Your task to perform on an android device: Show the shopping cart on bestbuy. Add "logitech g903" to the cart on bestbuy Image 0: 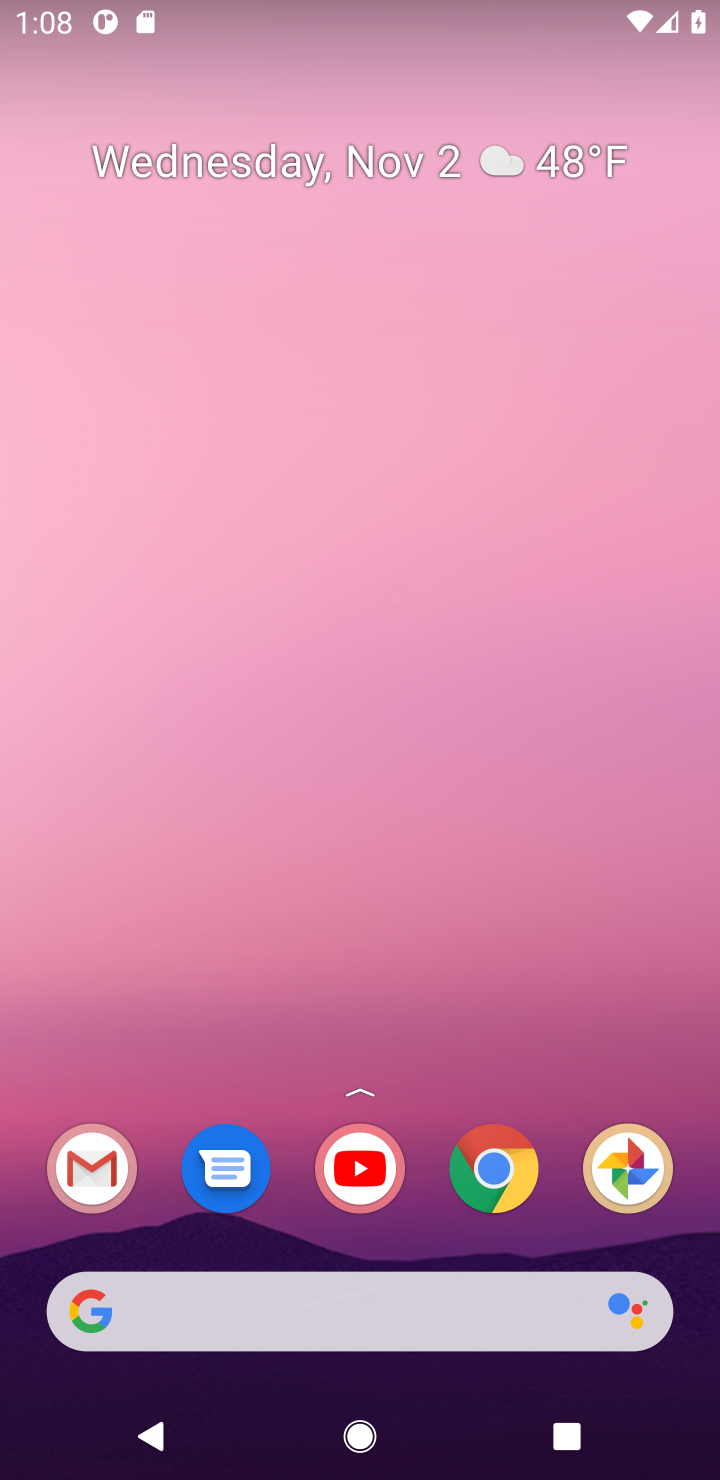
Step 0: click (271, 1303)
Your task to perform on an android device: Show the shopping cart on bestbuy. Add "logitech g903" to the cart on bestbuy Image 1: 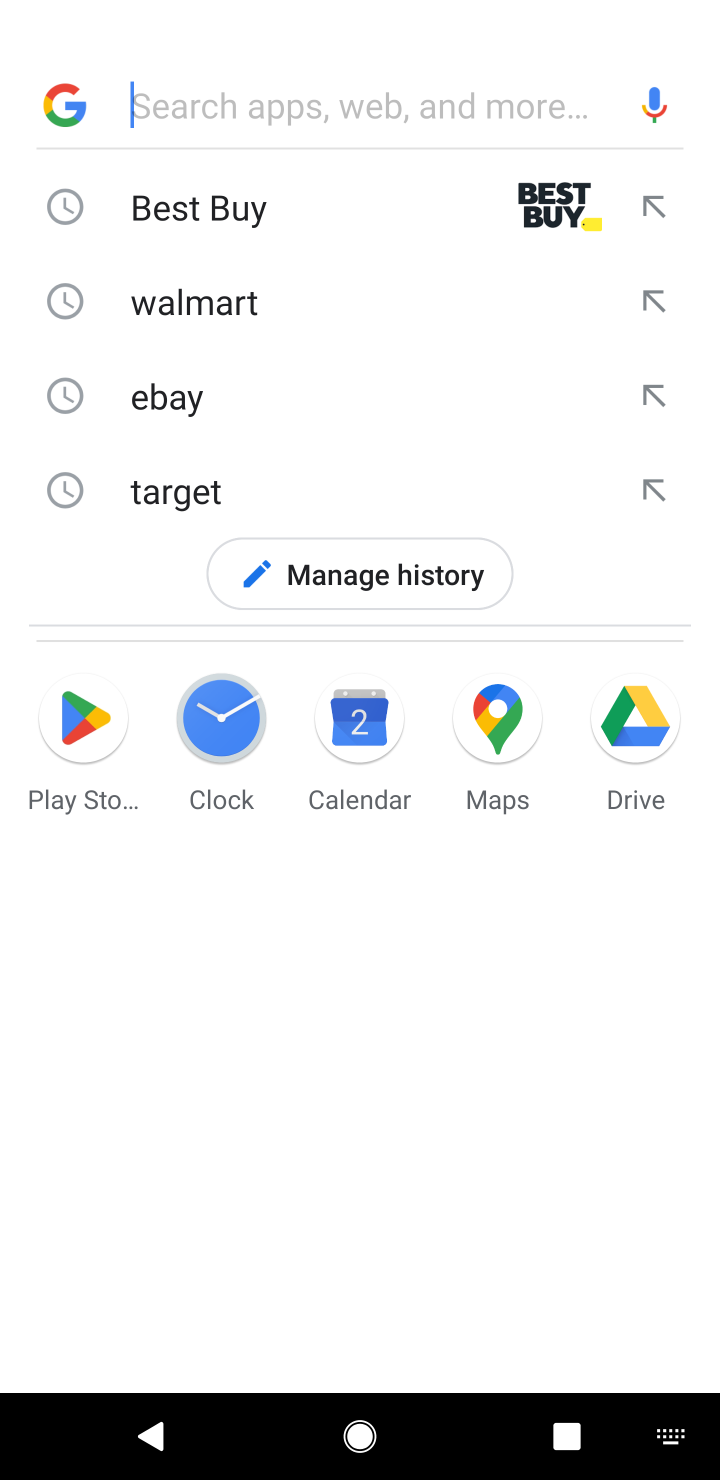
Step 1: click (261, 208)
Your task to perform on an android device: Show the shopping cart on bestbuy. Add "logitech g903" to the cart on bestbuy Image 2: 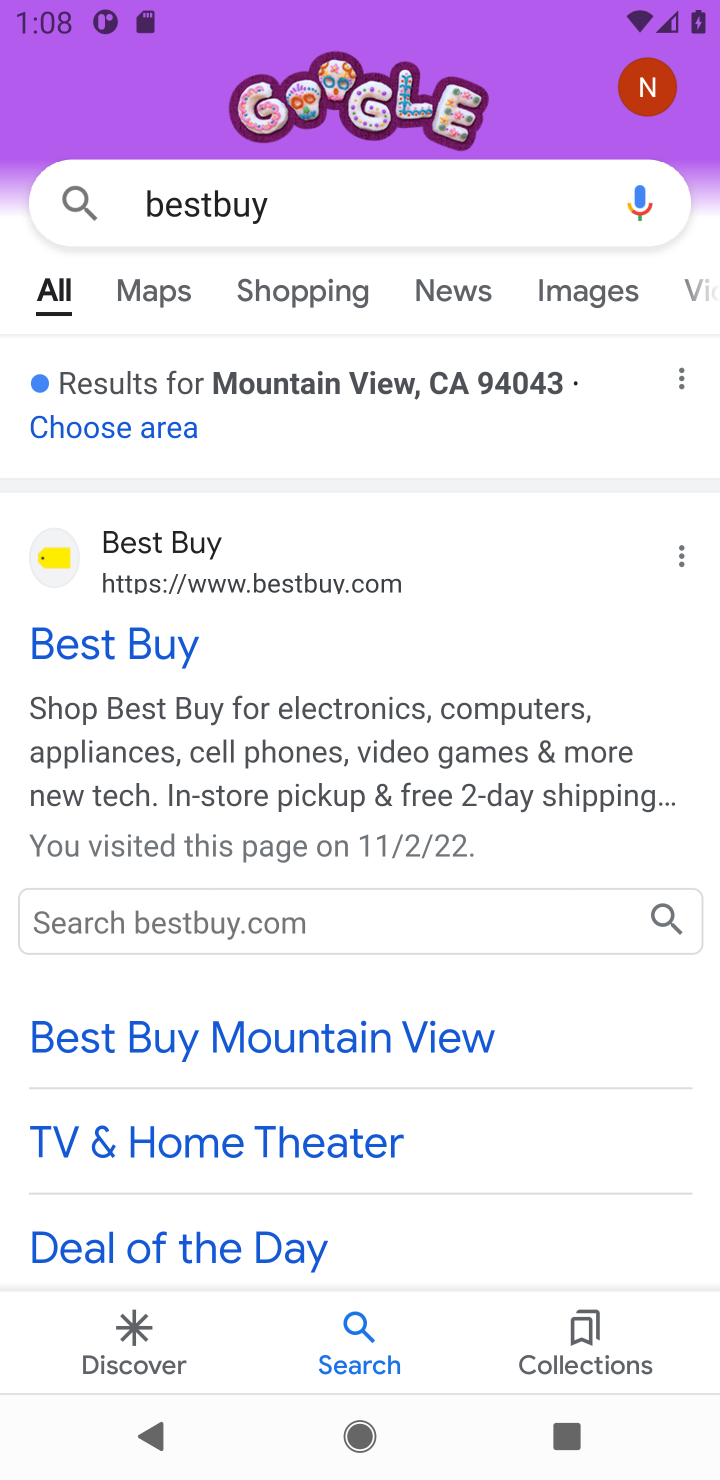
Step 2: click (114, 582)
Your task to perform on an android device: Show the shopping cart on bestbuy. Add "logitech g903" to the cart on bestbuy Image 3: 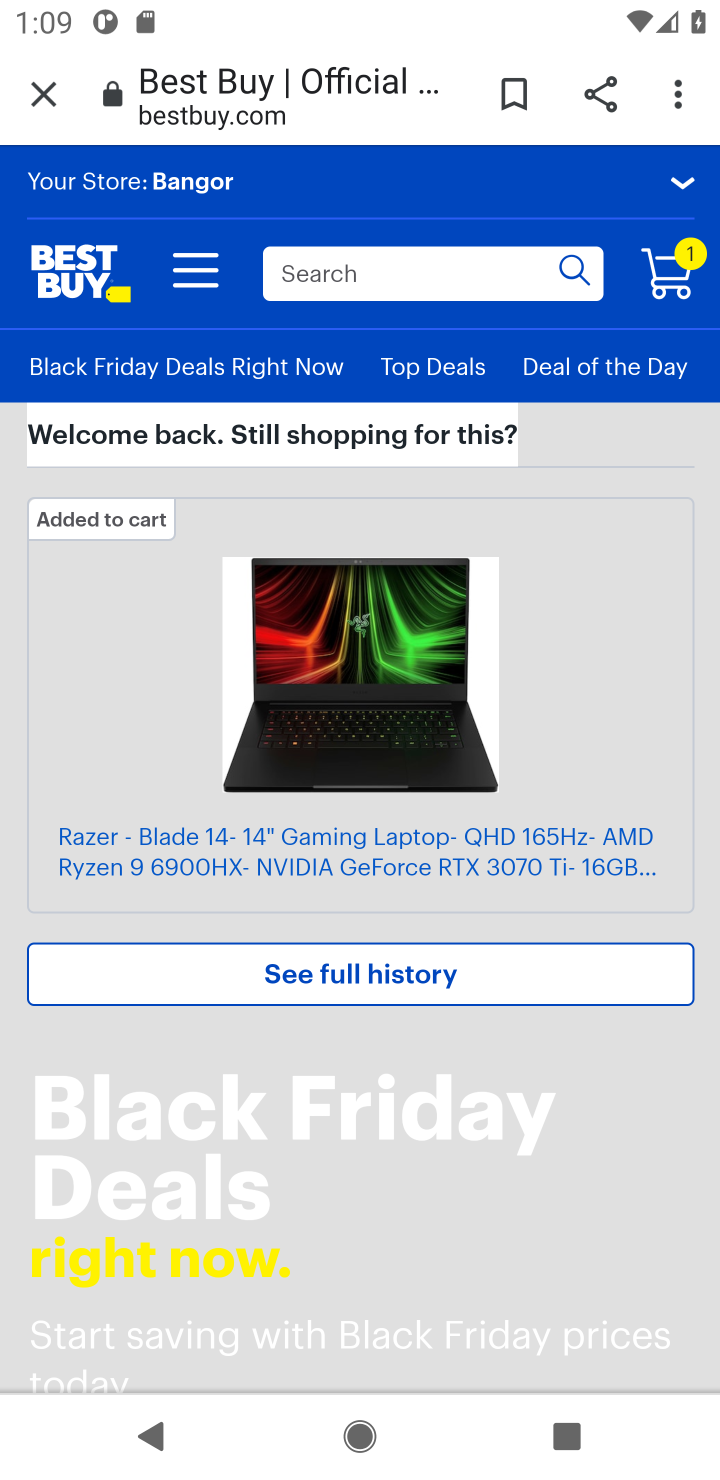
Step 3: click (338, 265)
Your task to perform on an android device: Show the shopping cart on bestbuy. Add "logitech g903" to the cart on bestbuy Image 4: 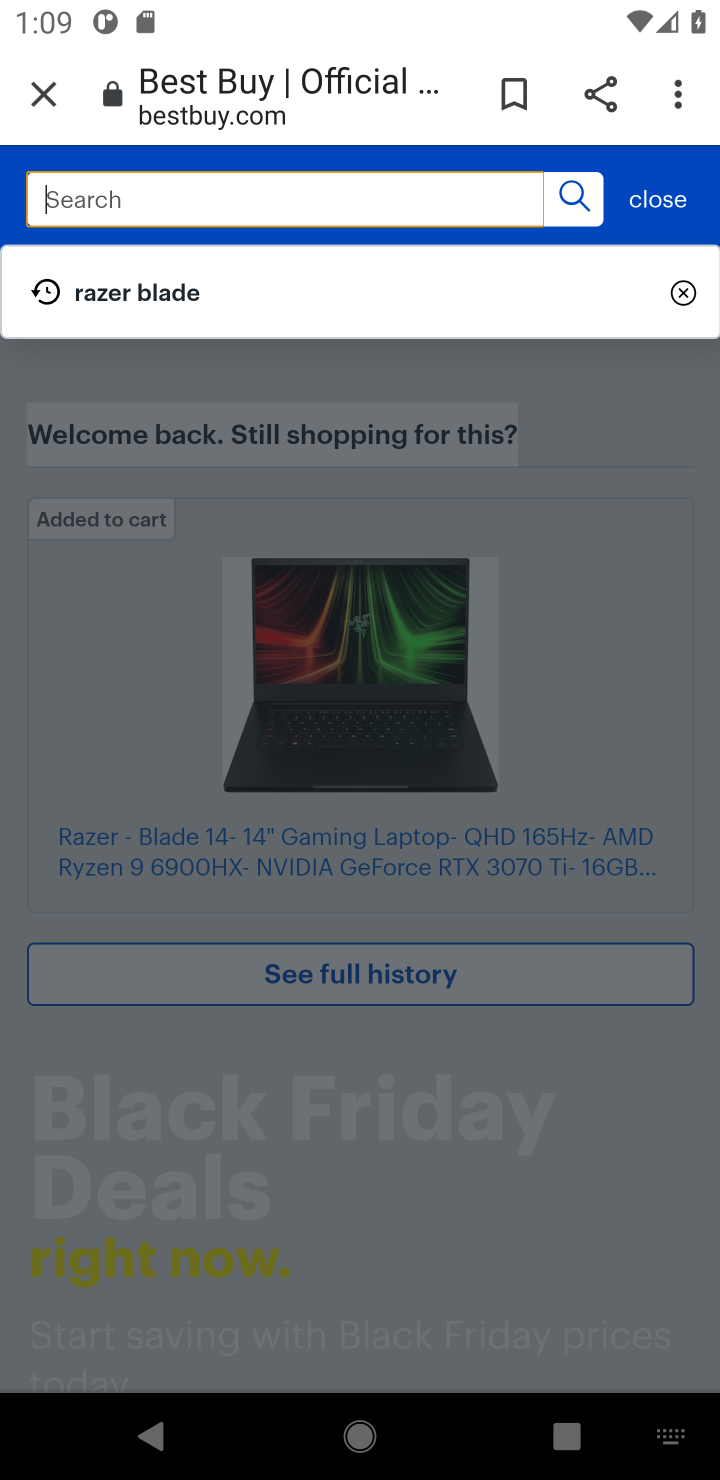
Step 4: type "bestbuy"
Your task to perform on an android device: Show the shopping cart on bestbuy. Add "logitech g903" to the cart on bestbuy Image 5: 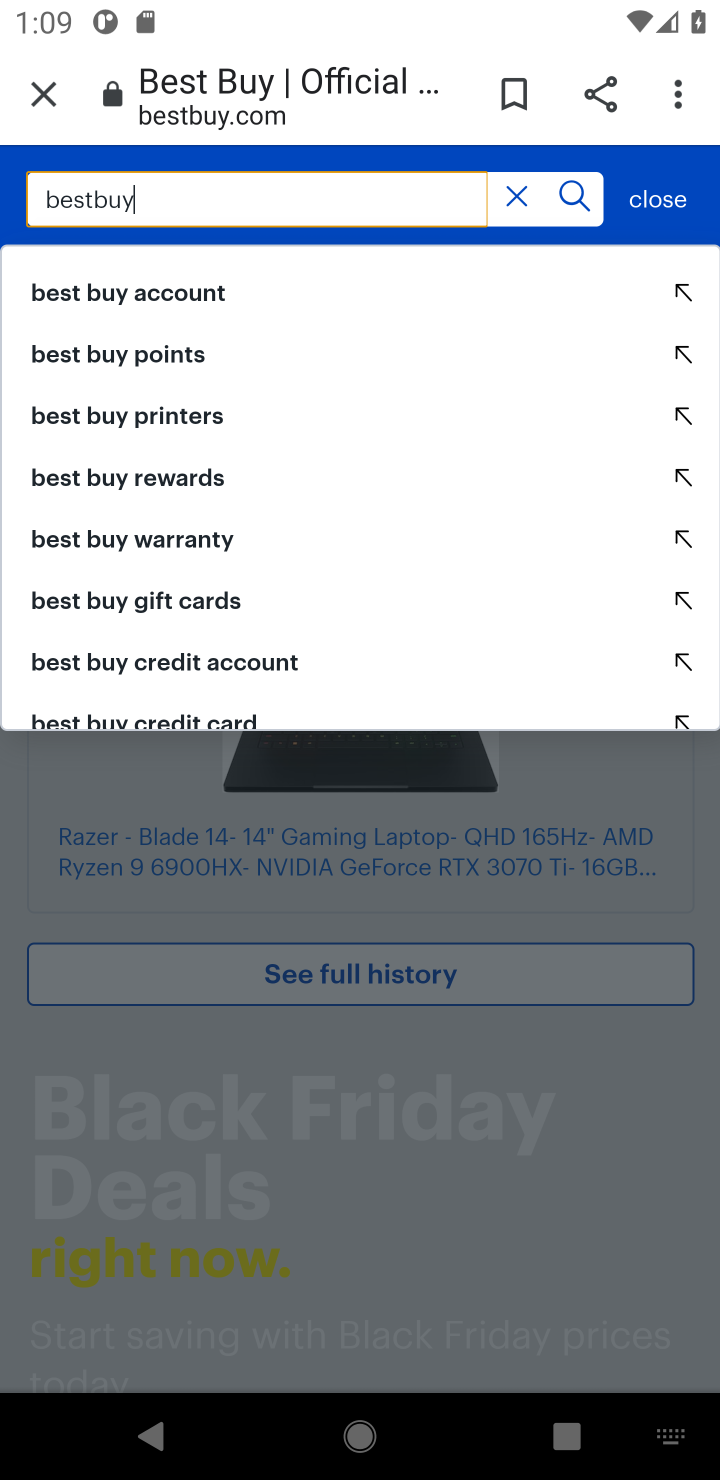
Step 5: click (510, 193)
Your task to perform on an android device: Show the shopping cart on bestbuy. Add "logitech g903" to the cart on bestbuy Image 6: 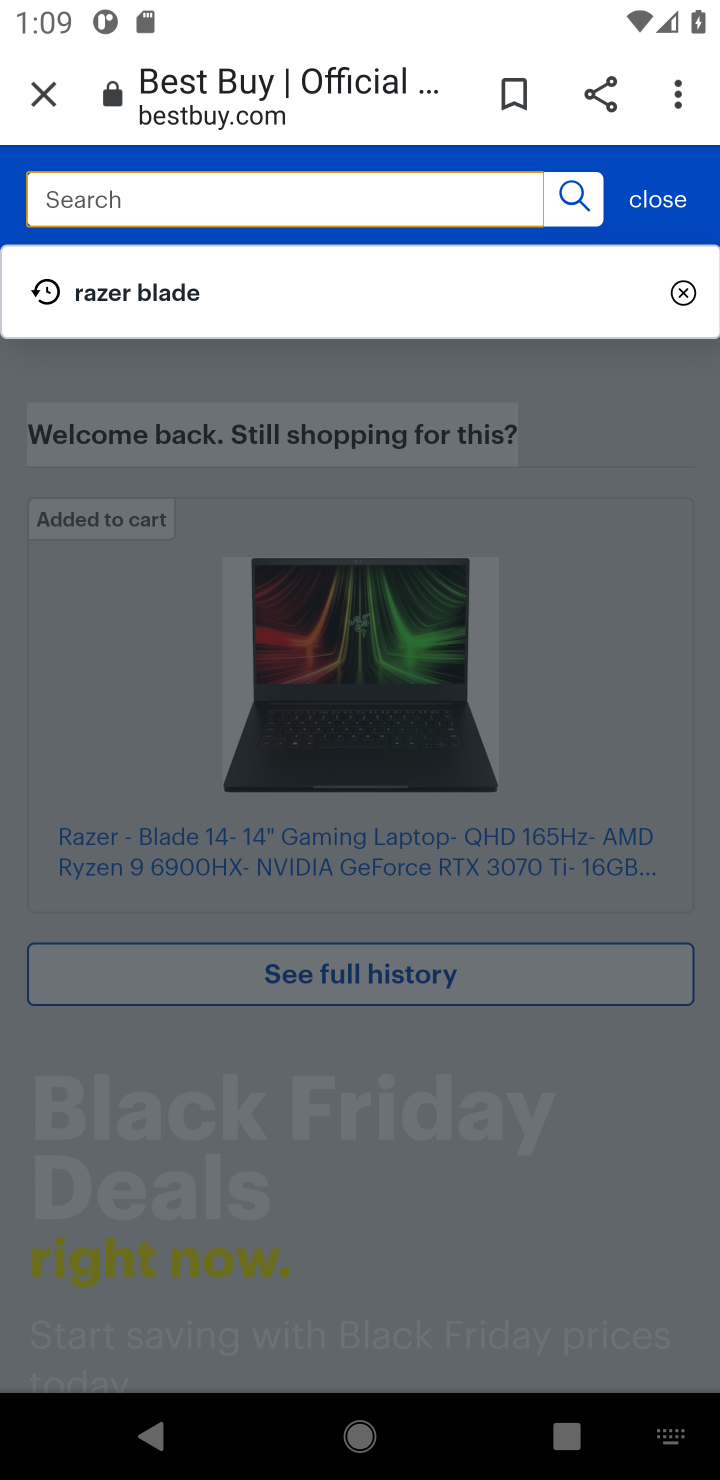
Step 6: type "logitech g903"
Your task to perform on an android device: Show the shopping cart on bestbuy. Add "logitech g903" to the cart on bestbuy Image 7: 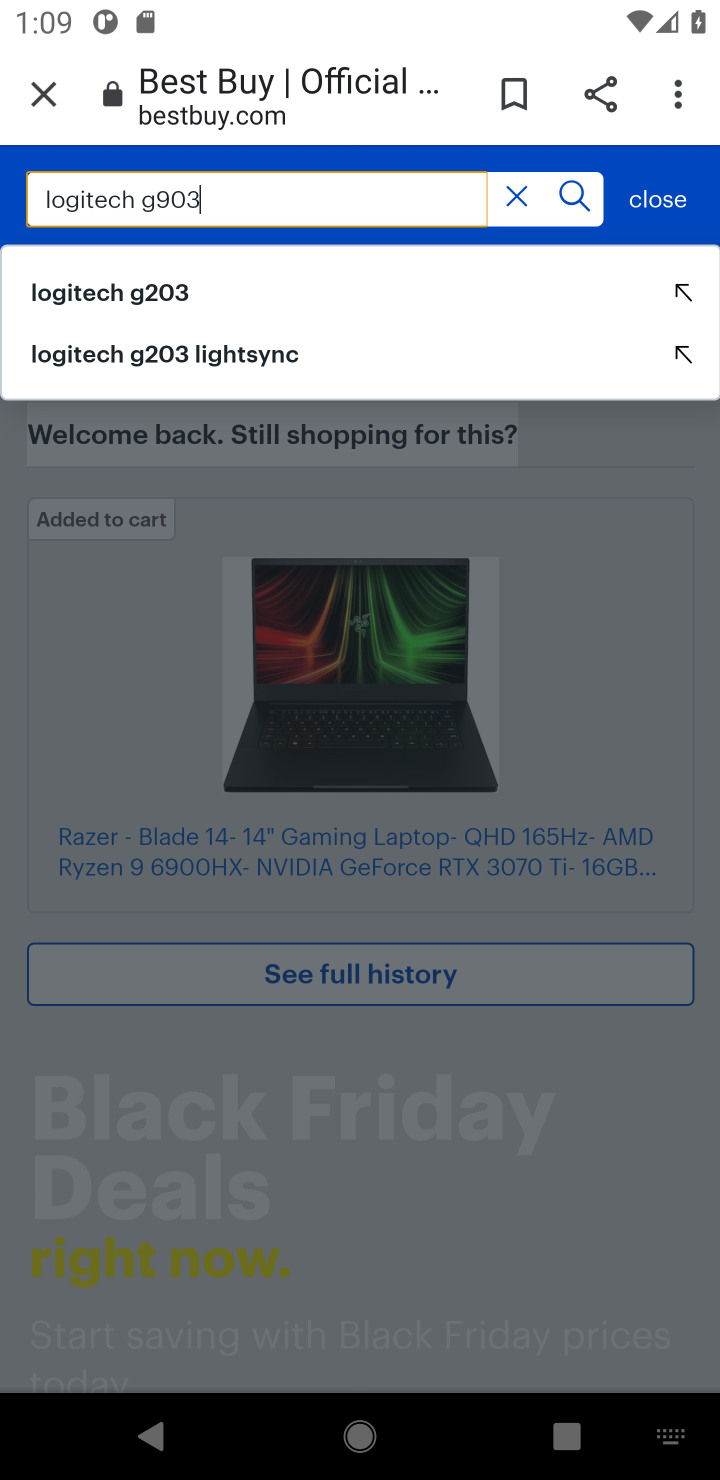
Step 7: click (162, 289)
Your task to perform on an android device: Show the shopping cart on bestbuy. Add "logitech g903" to the cart on bestbuy Image 8: 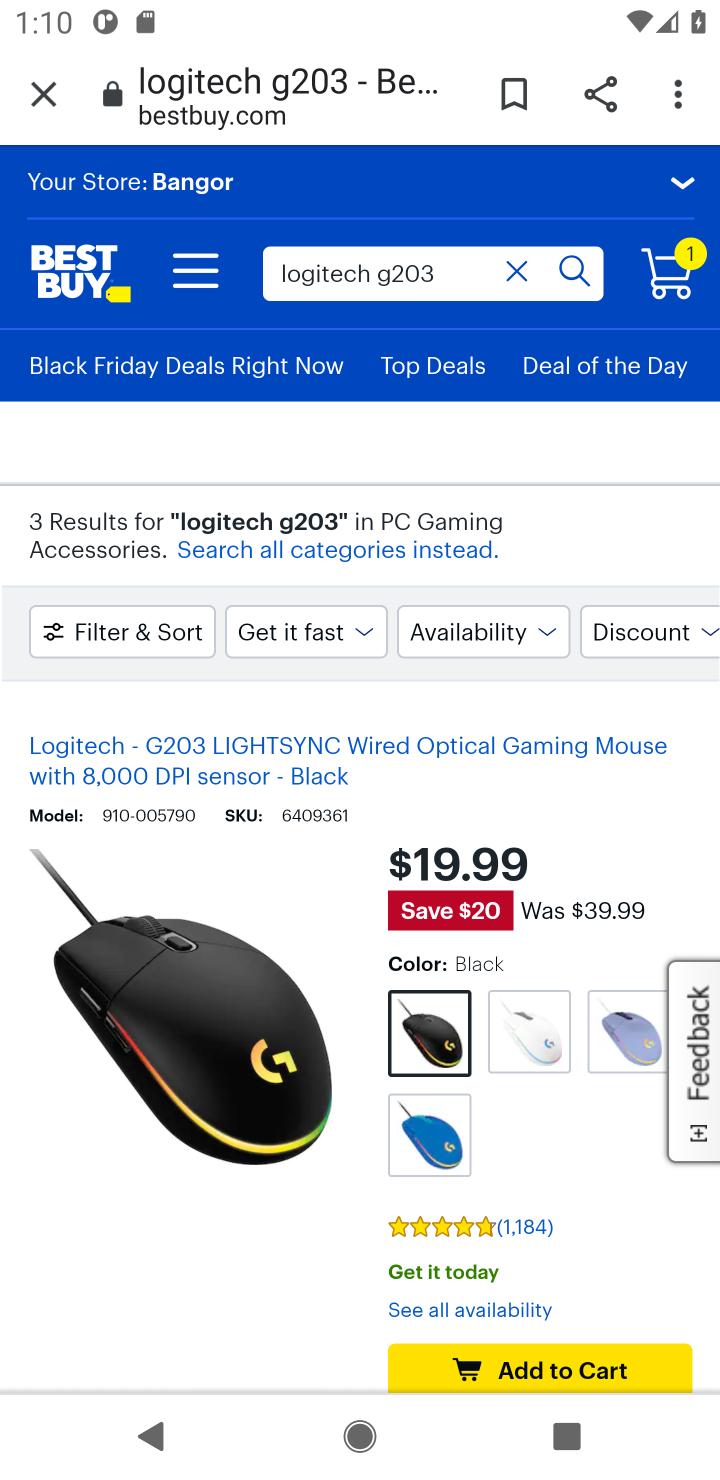
Step 8: click (520, 1379)
Your task to perform on an android device: Show the shopping cart on bestbuy. Add "logitech g903" to the cart on bestbuy Image 9: 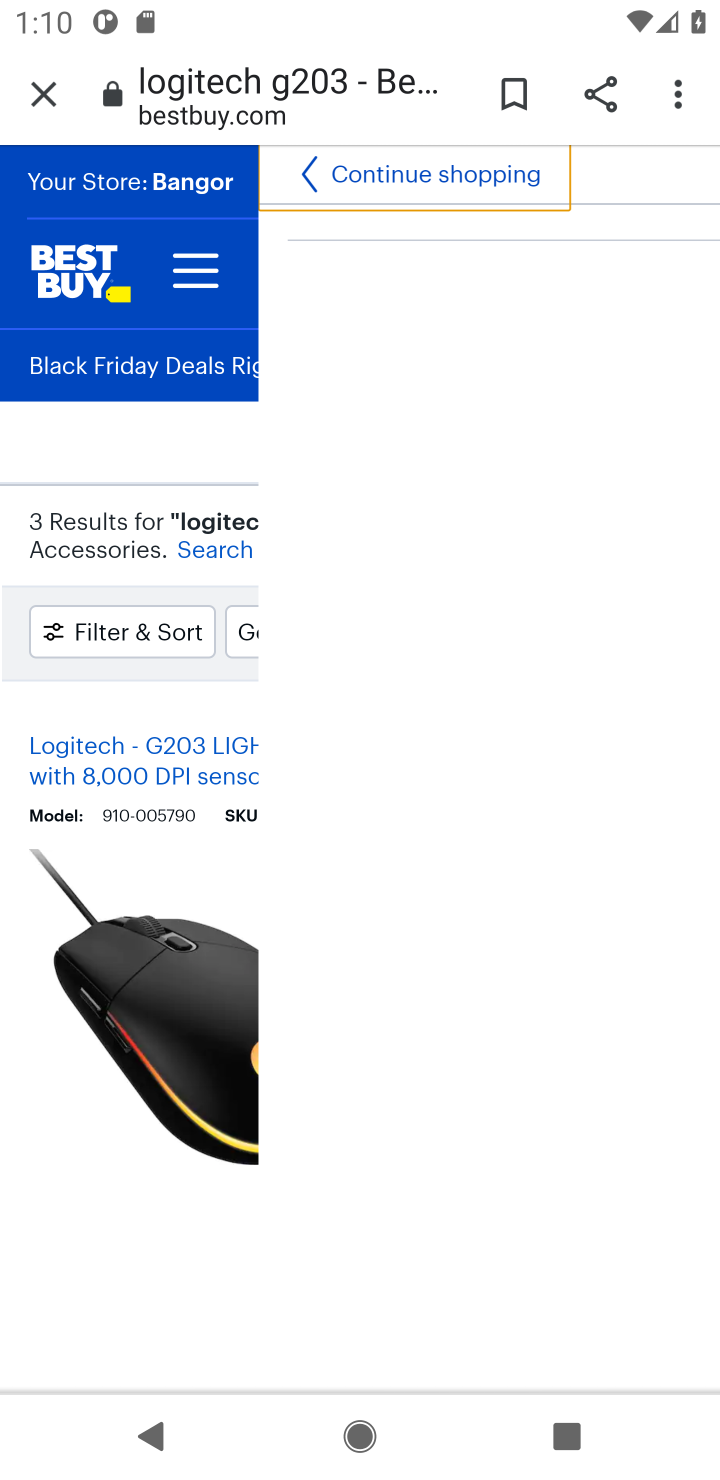
Step 9: task complete